Your task to perform on an android device: open a new tab in the chrome app Image 0: 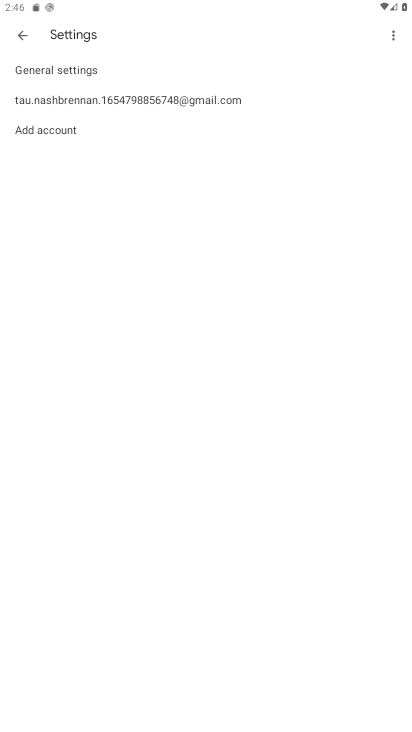
Step 0: press home button
Your task to perform on an android device: open a new tab in the chrome app Image 1: 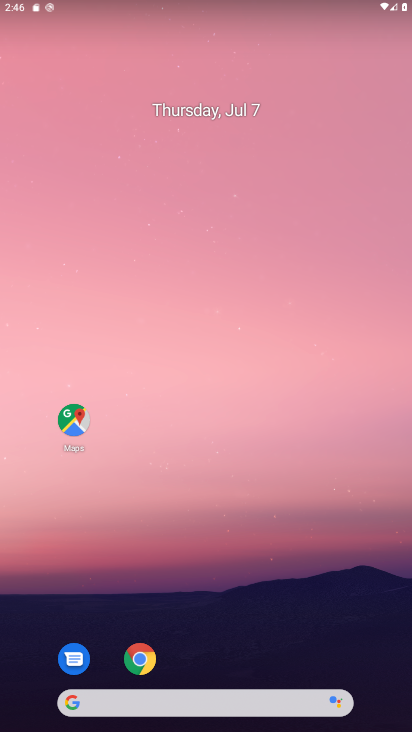
Step 1: click (138, 672)
Your task to perform on an android device: open a new tab in the chrome app Image 2: 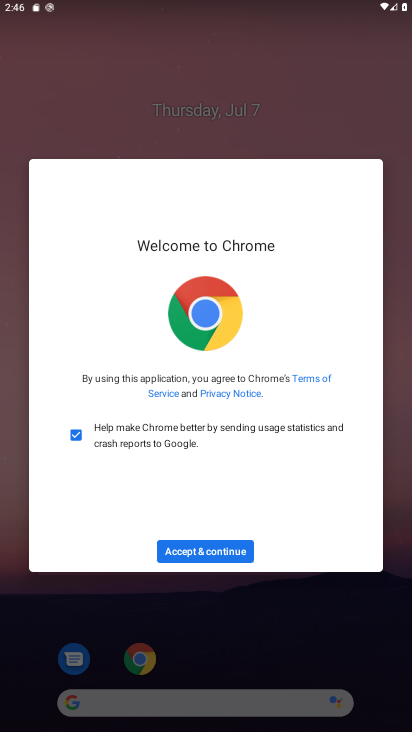
Step 2: click (216, 555)
Your task to perform on an android device: open a new tab in the chrome app Image 3: 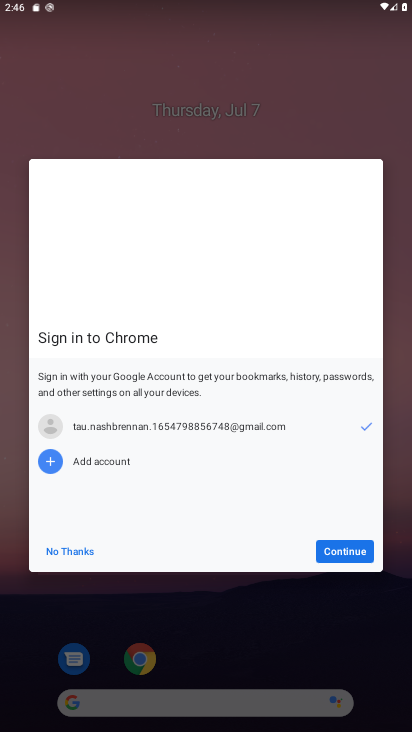
Step 3: click (344, 556)
Your task to perform on an android device: open a new tab in the chrome app Image 4: 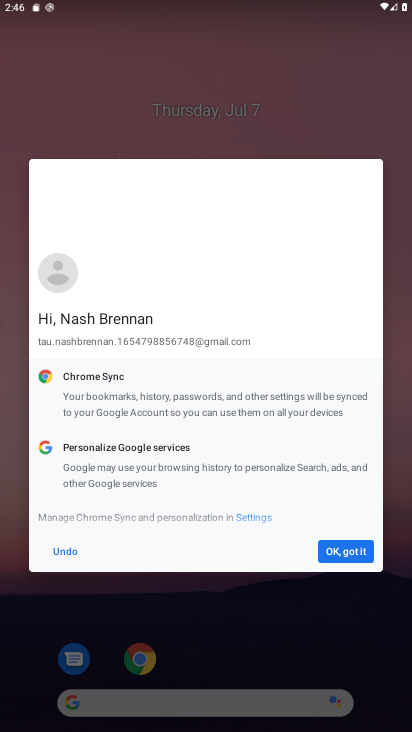
Step 4: click (364, 552)
Your task to perform on an android device: open a new tab in the chrome app Image 5: 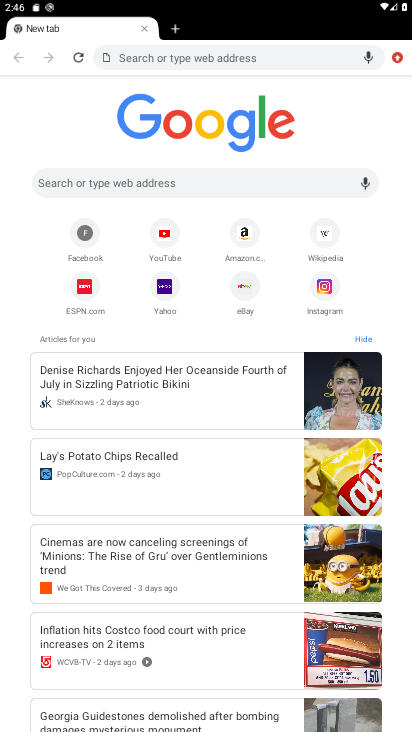
Step 5: task complete